Your task to perform on an android device: check google app version Image 0: 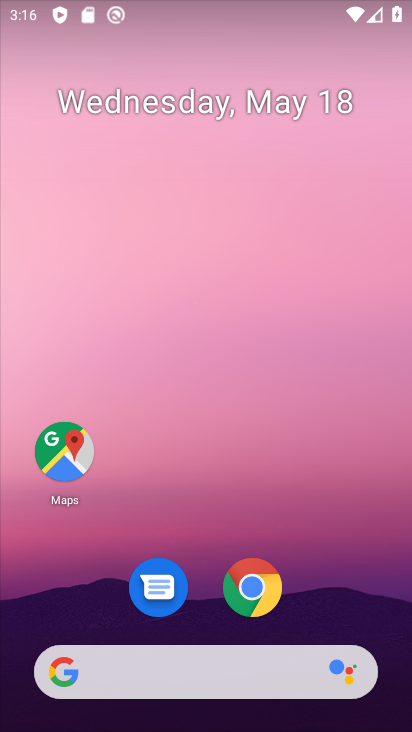
Step 0: drag from (349, 485) to (318, 20)
Your task to perform on an android device: check google app version Image 1: 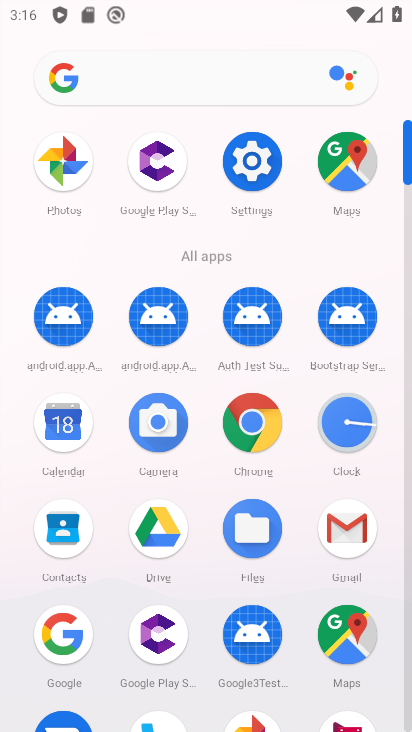
Step 1: drag from (226, 583) to (220, 245)
Your task to perform on an android device: check google app version Image 2: 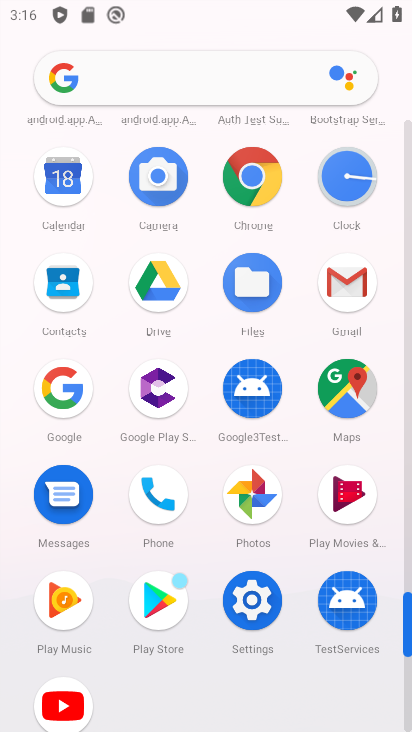
Step 2: click (55, 394)
Your task to perform on an android device: check google app version Image 3: 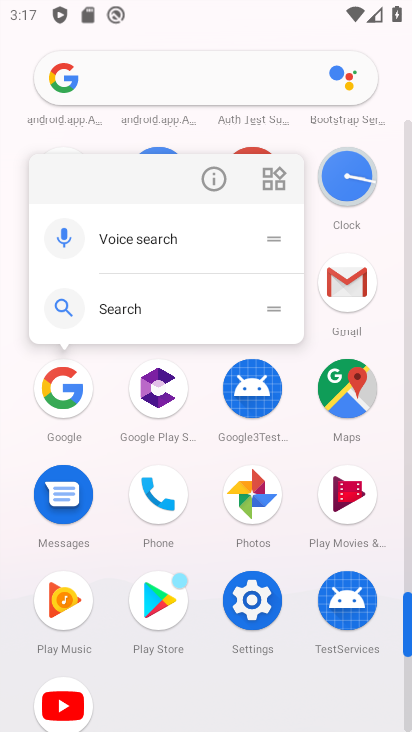
Step 3: click (218, 185)
Your task to perform on an android device: check google app version Image 4: 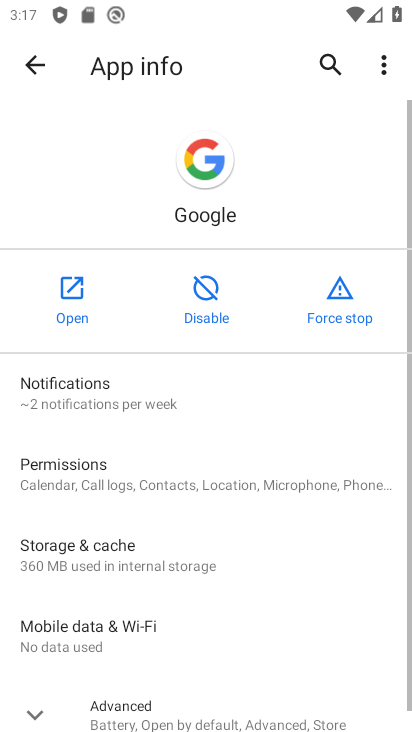
Step 4: drag from (254, 611) to (265, 97)
Your task to perform on an android device: check google app version Image 5: 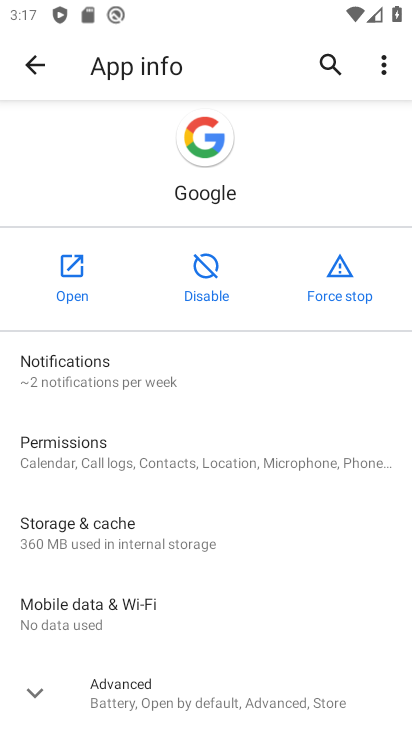
Step 5: click (185, 708)
Your task to perform on an android device: check google app version Image 6: 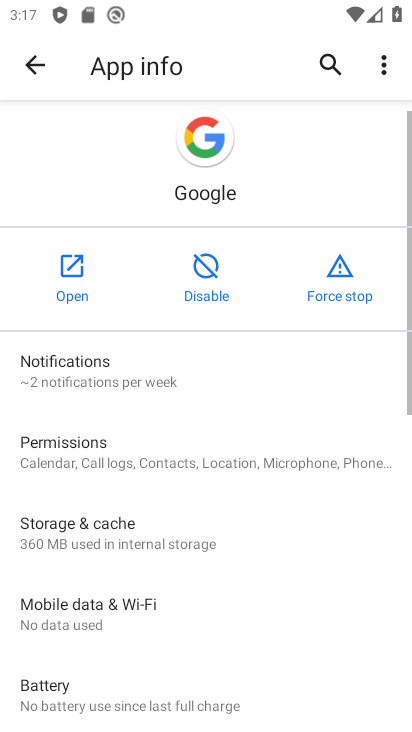
Step 6: drag from (194, 671) to (193, 127)
Your task to perform on an android device: check google app version Image 7: 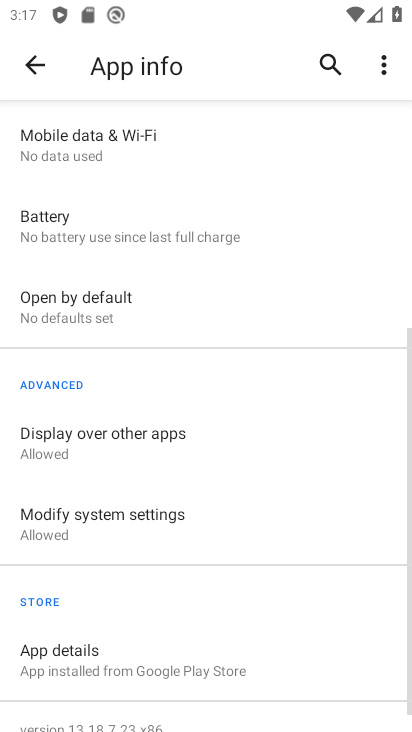
Step 7: drag from (179, 594) to (239, 133)
Your task to perform on an android device: check google app version Image 8: 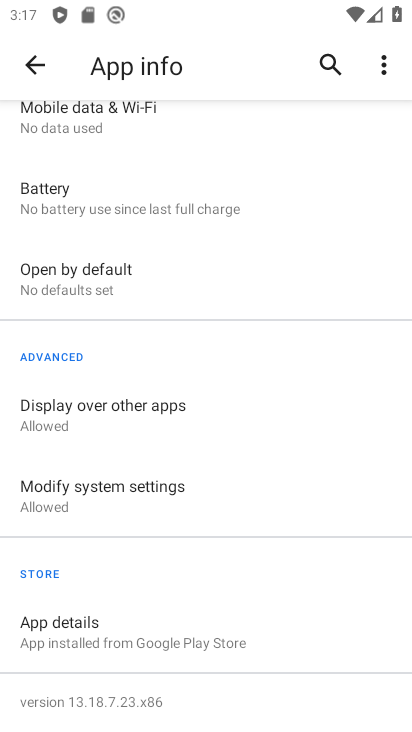
Step 8: click (167, 718)
Your task to perform on an android device: check google app version Image 9: 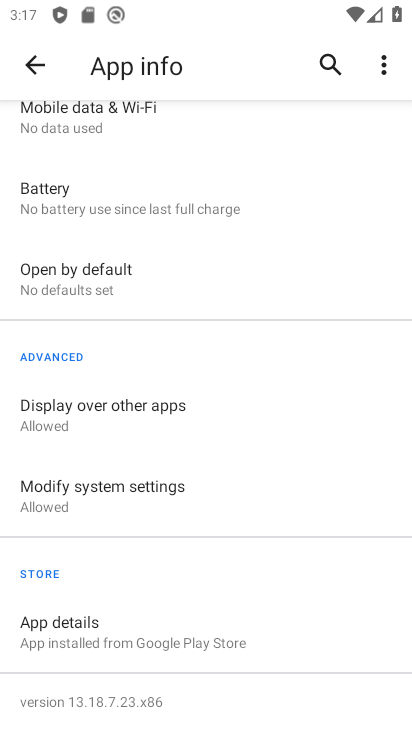
Step 9: task complete